Your task to perform on an android device: change the clock display to show seconds Image 0: 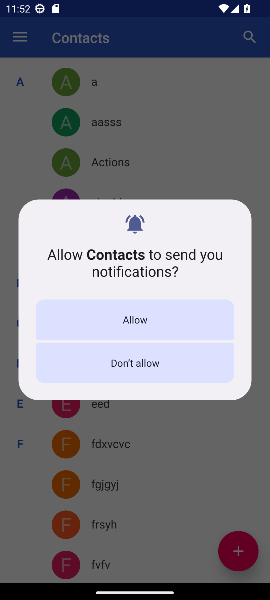
Step 0: press home button
Your task to perform on an android device: change the clock display to show seconds Image 1: 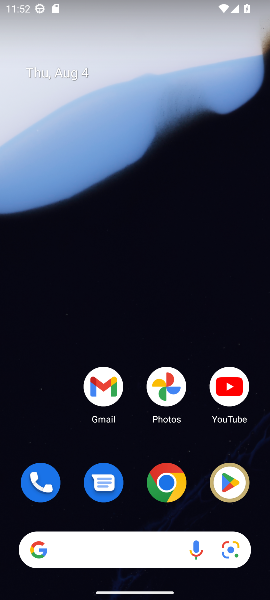
Step 1: drag from (134, 445) to (136, 193)
Your task to perform on an android device: change the clock display to show seconds Image 2: 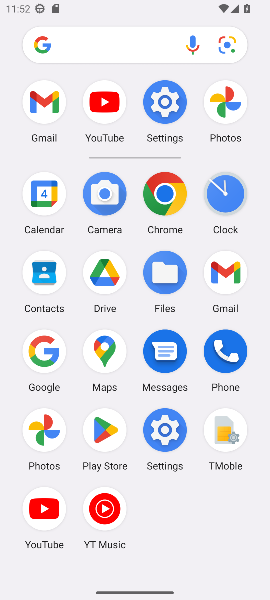
Step 2: click (213, 206)
Your task to perform on an android device: change the clock display to show seconds Image 3: 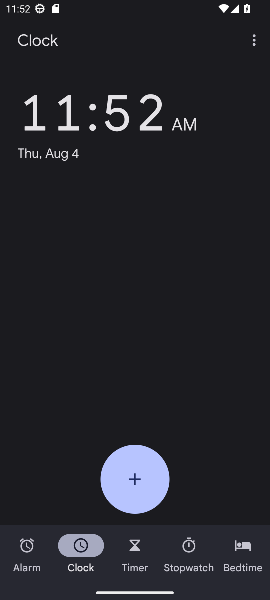
Step 3: click (256, 39)
Your task to perform on an android device: change the clock display to show seconds Image 4: 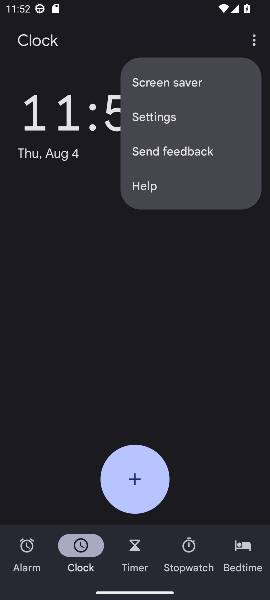
Step 4: click (189, 113)
Your task to perform on an android device: change the clock display to show seconds Image 5: 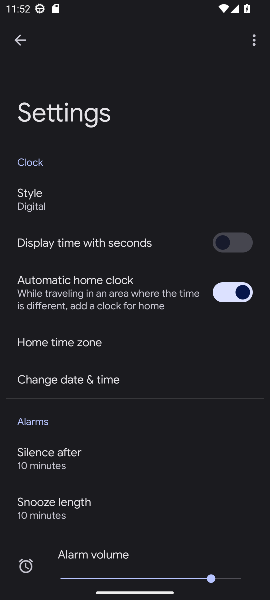
Step 5: click (239, 244)
Your task to perform on an android device: change the clock display to show seconds Image 6: 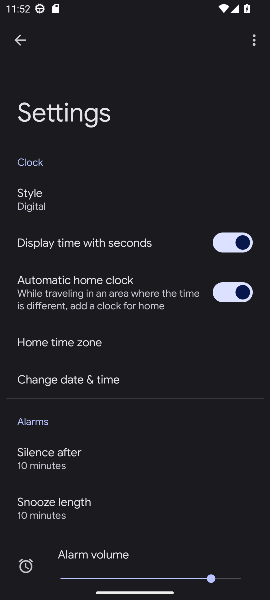
Step 6: task complete